Your task to perform on an android device: Go to Yahoo.com Image 0: 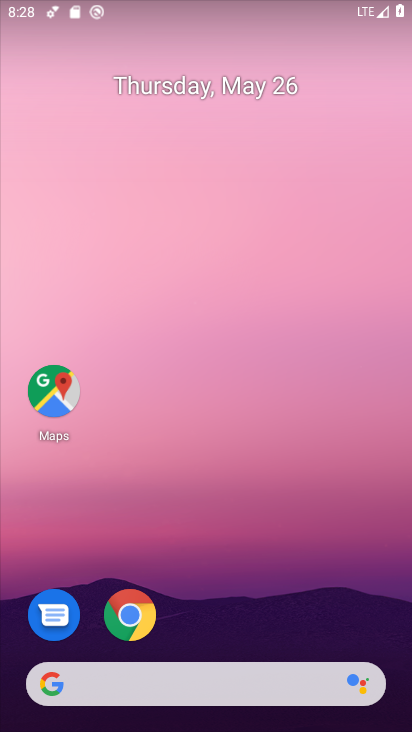
Step 0: click (134, 613)
Your task to perform on an android device: Go to Yahoo.com Image 1: 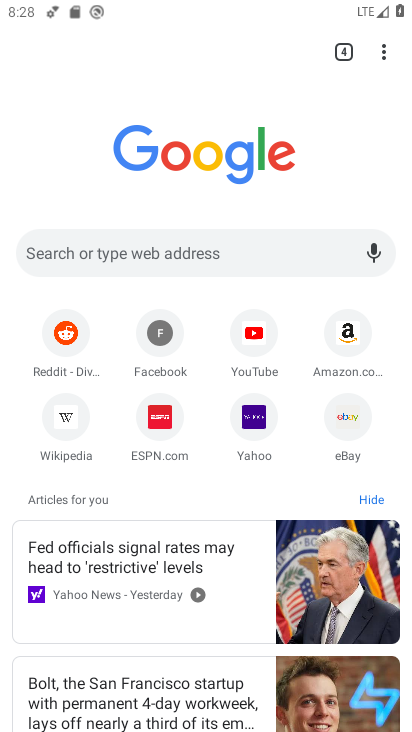
Step 1: click (254, 408)
Your task to perform on an android device: Go to Yahoo.com Image 2: 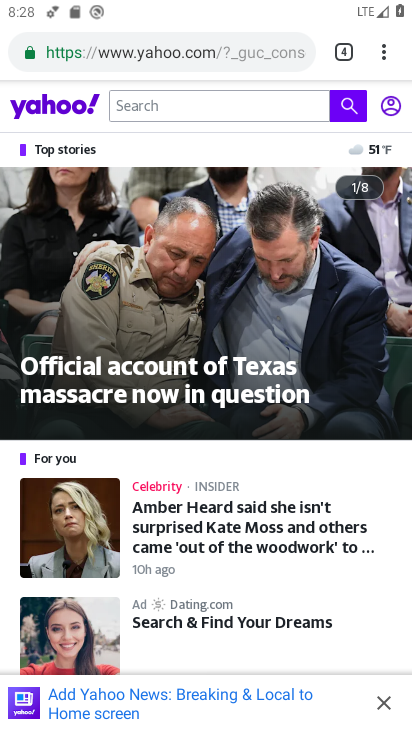
Step 2: task complete